Your task to perform on an android device: open device folders in google photos Image 0: 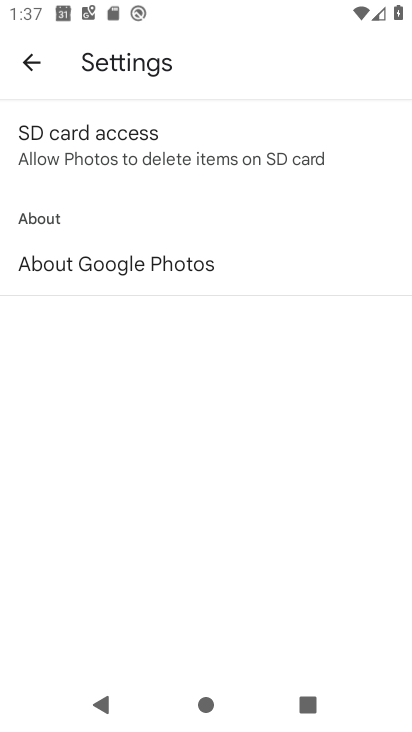
Step 0: press home button
Your task to perform on an android device: open device folders in google photos Image 1: 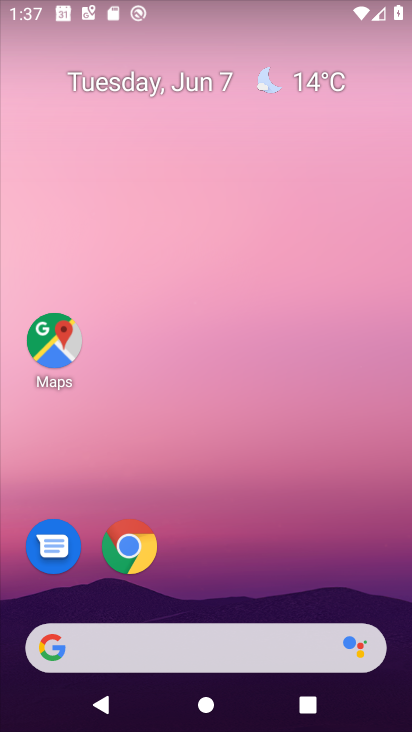
Step 1: drag from (236, 606) to (237, 119)
Your task to perform on an android device: open device folders in google photos Image 2: 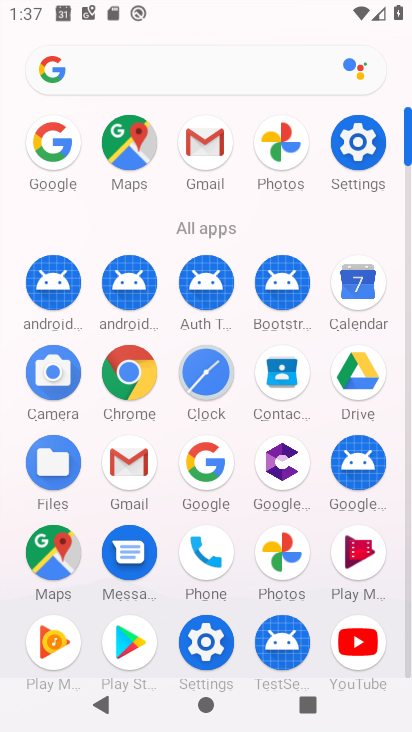
Step 2: click (284, 550)
Your task to perform on an android device: open device folders in google photos Image 3: 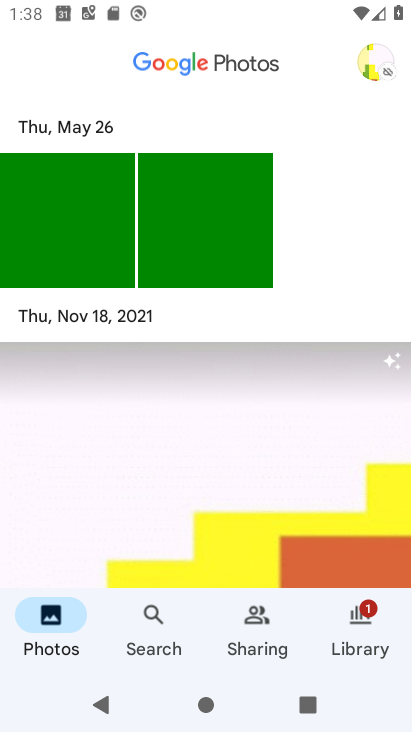
Step 3: click (360, 619)
Your task to perform on an android device: open device folders in google photos Image 4: 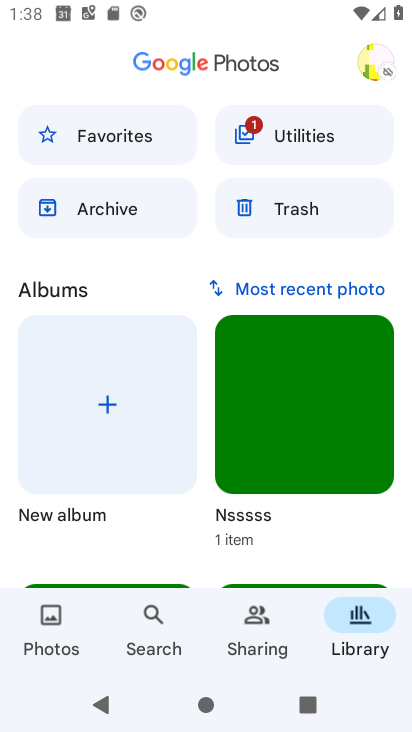
Step 4: click (377, 69)
Your task to perform on an android device: open device folders in google photos Image 5: 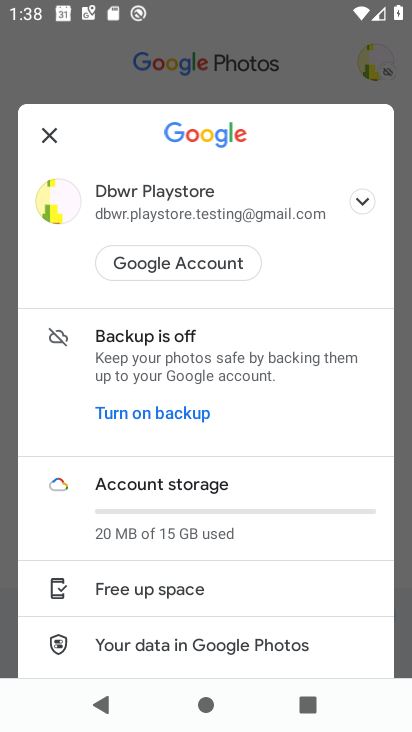
Step 5: click (366, 204)
Your task to perform on an android device: open device folders in google photos Image 6: 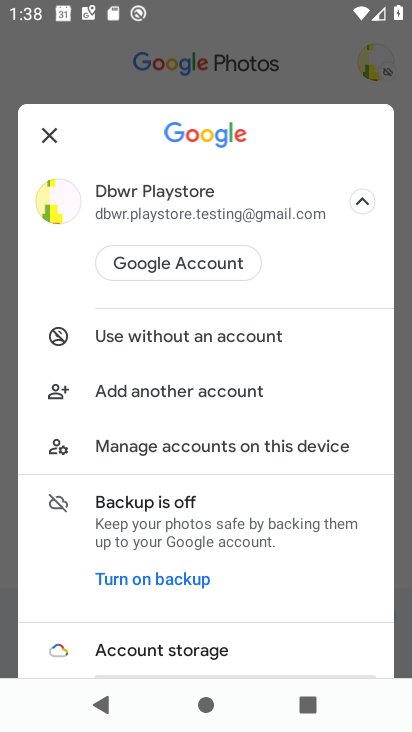
Step 6: task complete